Your task to perform on an android device: Open the calendar and show me this week's events? Image 0: 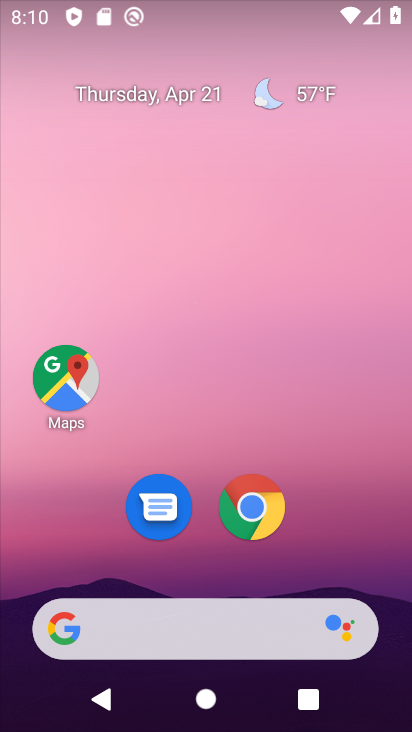
Step 0: drag from (329, 442) to (265, 14)
Your task to perform on an android device: Open the calendar and show me this week's events? Image 1: 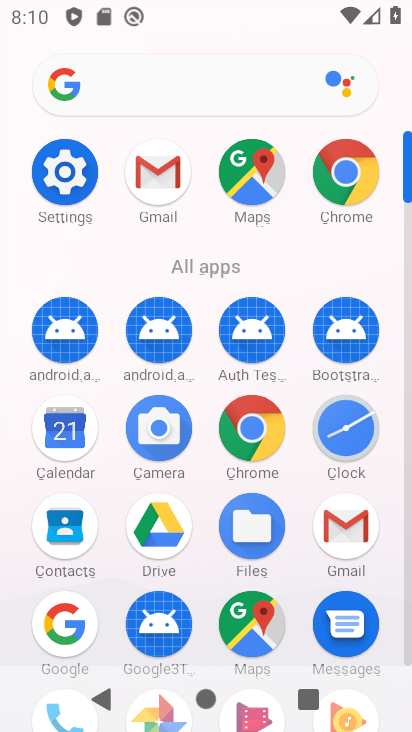
Step 1: click (56, 437)
Your task to perform on an android device: Open the calendar and show me this week's events? Image 2: 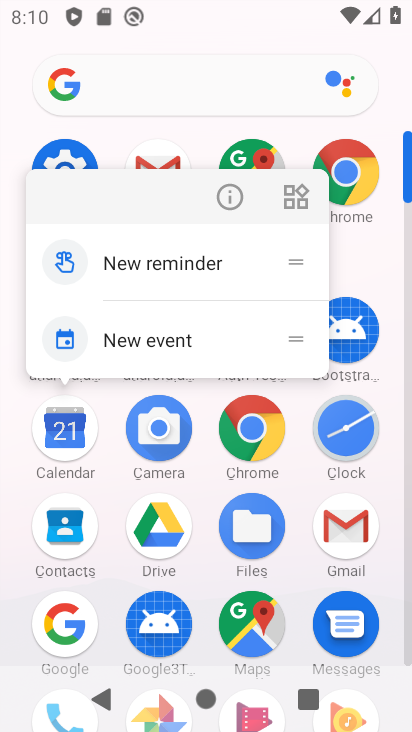
Step 2: click (68, 412)
Your task to perform on an android device: Open the calendar and show me this week's events? Image 3: 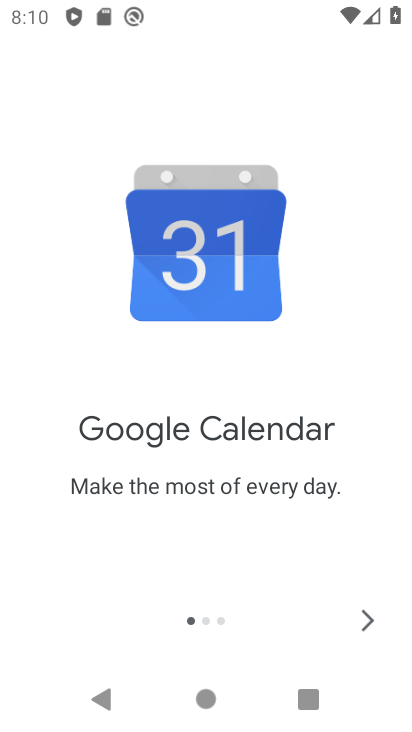
Step 3: click (360, 629)
Your task to perform on an android device: Open the calendar and show me this week's events? Image 4: 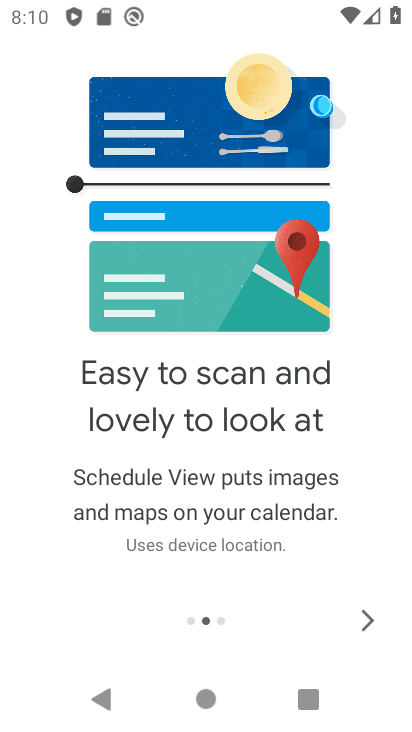
Step 4: click (360, 629)
Your task to perform on an android device: Open the calendar and show me this week's events? Image 5: 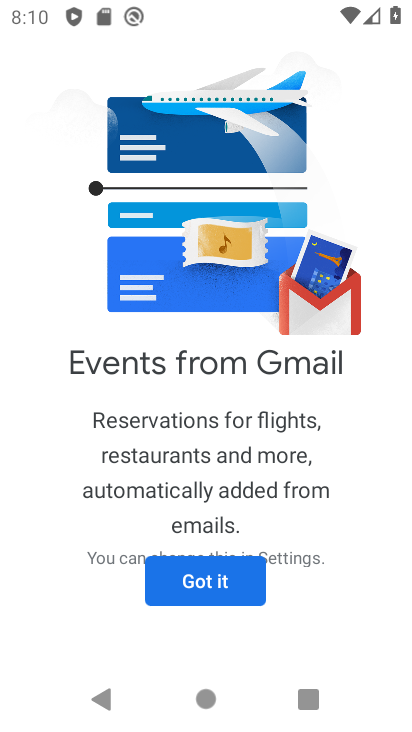
Step 5: click (360, 629)
Your task to perform on an android device: Open the calendar and show me this week's events? Image 6: 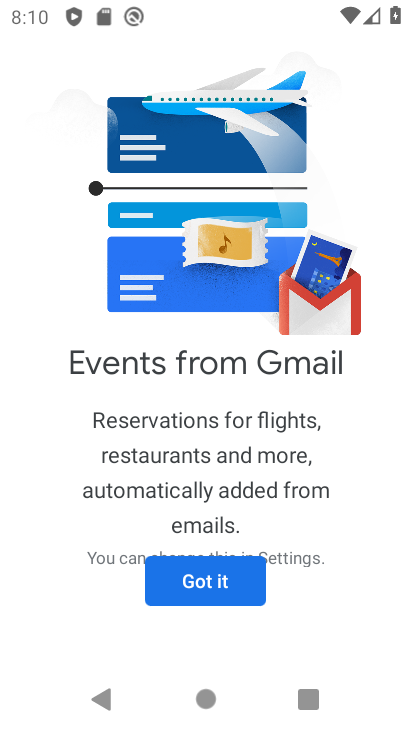
Step 6: click (238, 576)
Your task to perform on an android device: Open the calendar and show me this week's events? Image 7: 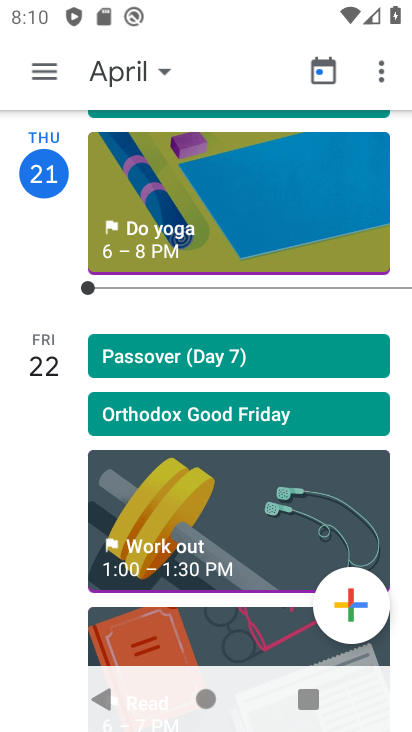
Step 7: click (115, 82)
Your task to perform on an android device: Open the calendar and show me this week's events? Image 8: 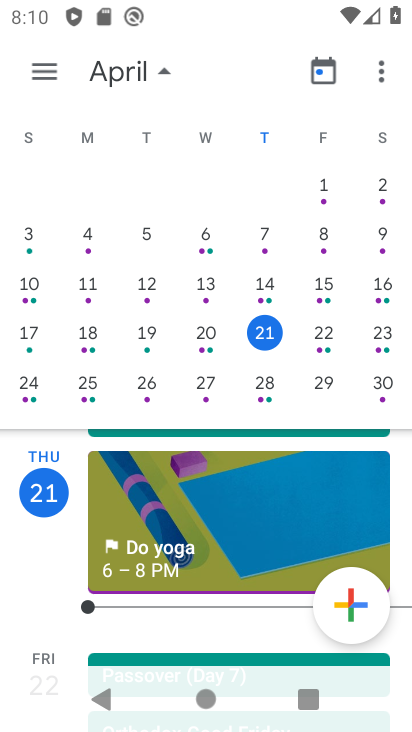
Step 8: click (267, 395)
Your task to perform on an android device: Open the calendar and show me this week's events? Image 9: 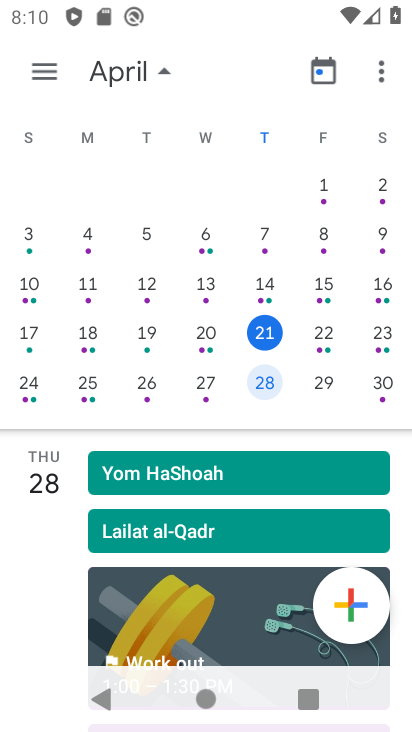
Step 9: task complete